Your task to perform on an android device: toggle translation in the chrome app Image 0: 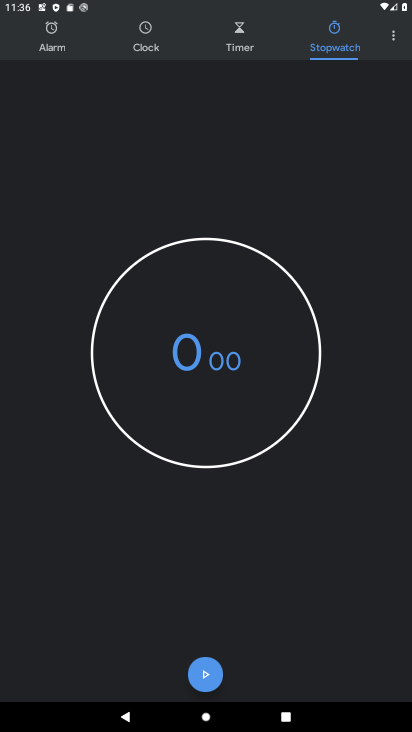
Step 0: press home button
Your task to perform on an android device: toggle translation in the chrome app Image 1: 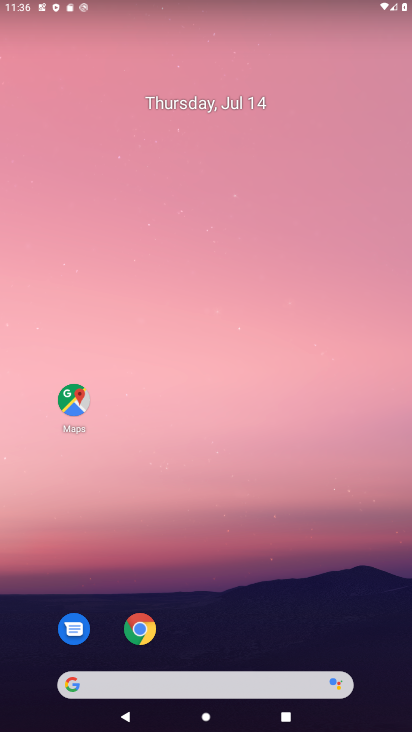
Step 1: drag from (243, 602) to (296, 141)
Your task to perform on an android device: toggle translation in the chrome app Image 2: 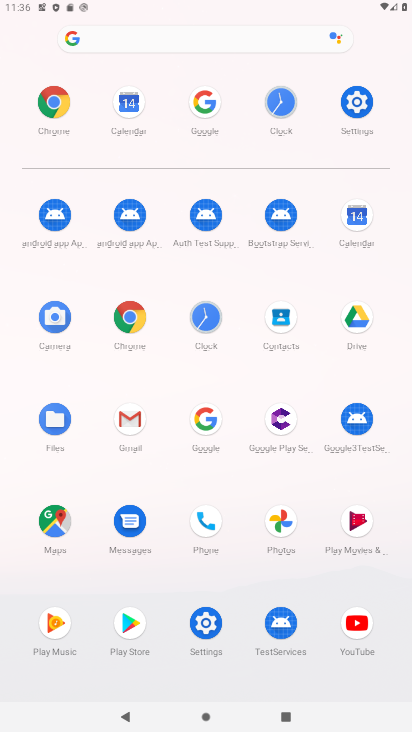
Step 2: click (123, 312)
Your task to perform on an android device: toggle translation in the chrome app Image 3: 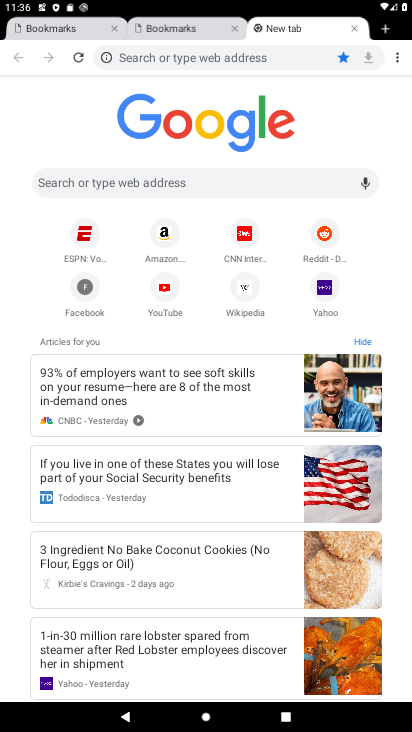
Step 3: drag from (399, 59) to (294, 262)
Your task to perform on an android device: toggle translation in the chrome app Image 4: 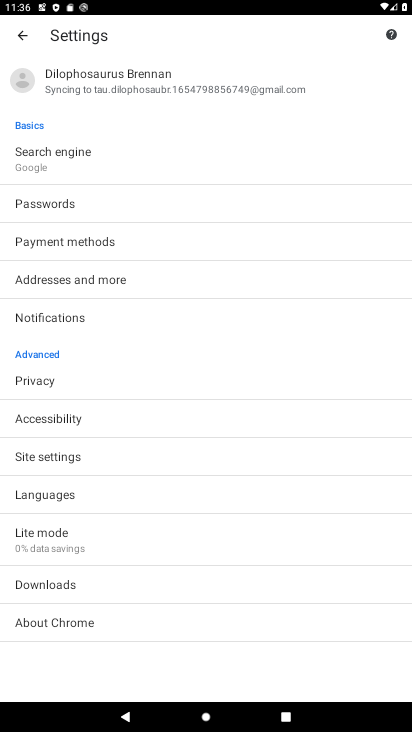
Step 4: click (51, 493)
Your task to perform on an android device: toggle translation in the chrome app Image 5: 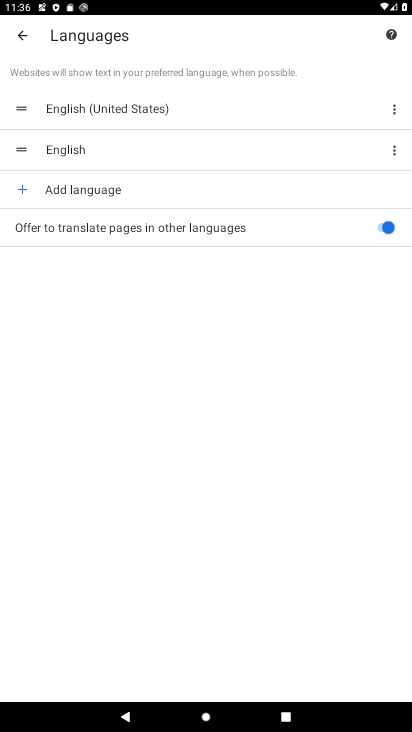
Step 5: click (394, 218)
Your task to perform on an android device: toggle translation in the chrome app Image 6: 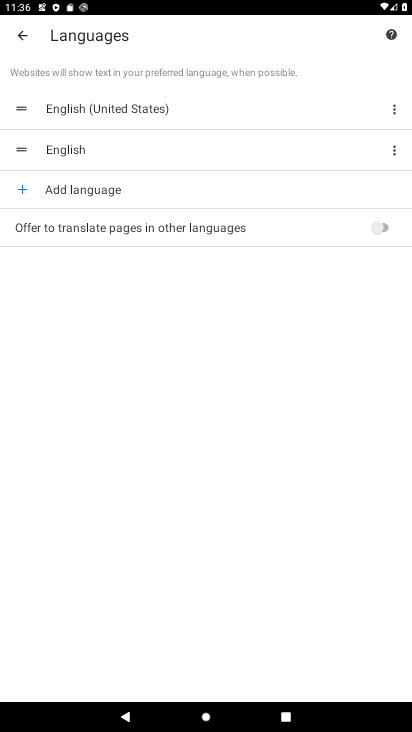
Step 6: task complete